Your task to perform on an android device: open a bookmark in the chrome app Image 0: 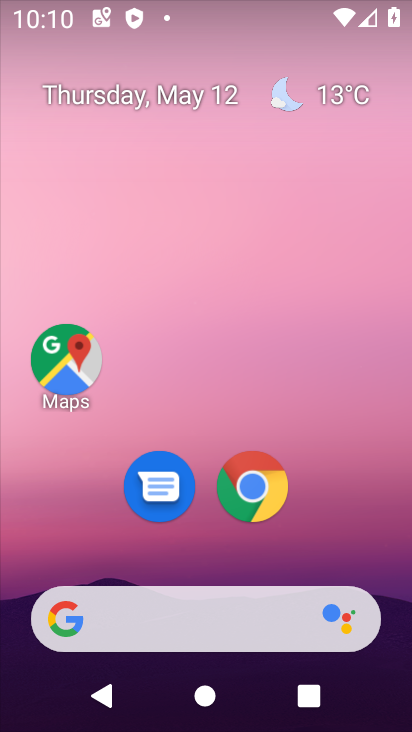
Step 0: click (279, 495)
Your task to perform on an android device: open a bookmark in the chrome app Image 1: 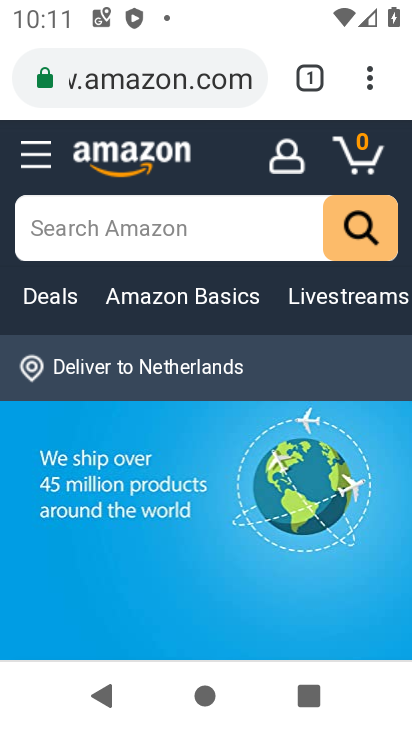
Step 1: click (366, 93)
Your task to perform on an android device: open a bookmark in the chrome app Image 2: 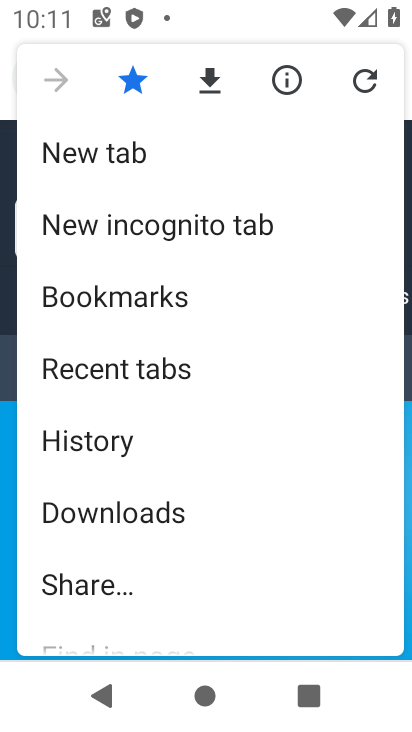
Step 2: click (255, 290)
Your task to perform on an android device: open a bookmark in the chrome app Image 3: 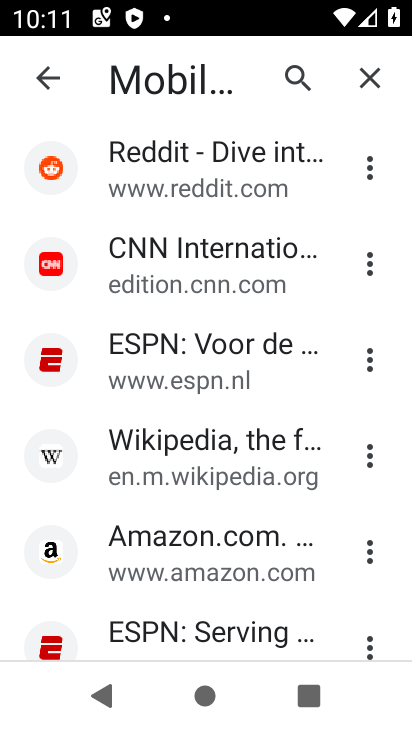
Step 3: drag from (241, 522) to (173, 179)
Your task to perform on an android device: open a bookmark in the chrome app Image 4: 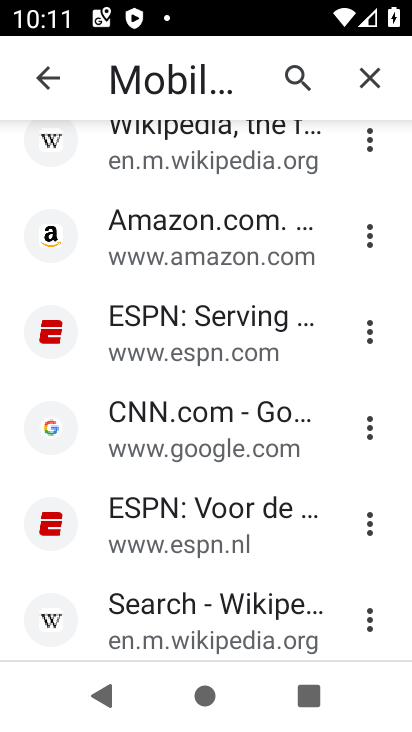
Step 4: click (250, 609)
Your task to perform on an android device: open a bookmark in the chrome app Image 5: 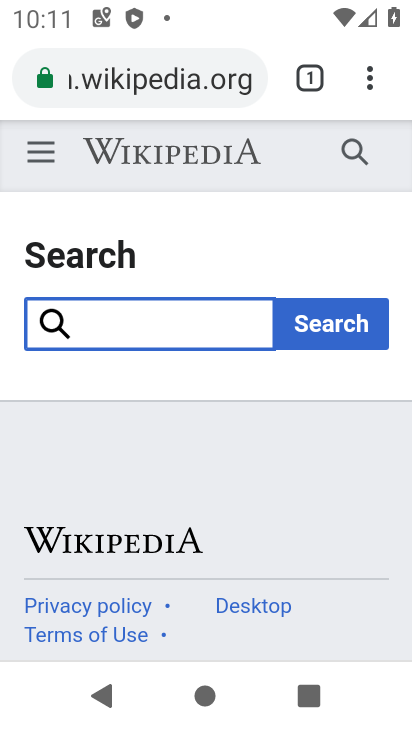
Step 5: task complete